Your task to perform on an android device: toggle notifications settings in the gmail app Image 0: 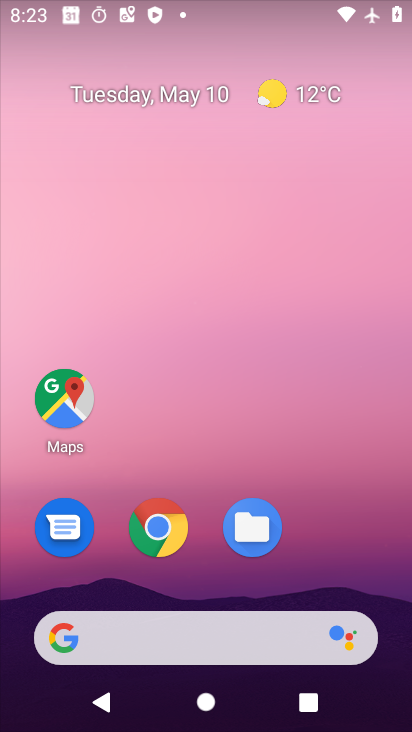
Step 0: drag from (342, 721) to (398, 270)
Your task to perform on an android device: toggle notifications settings in the gmail app Image 1: 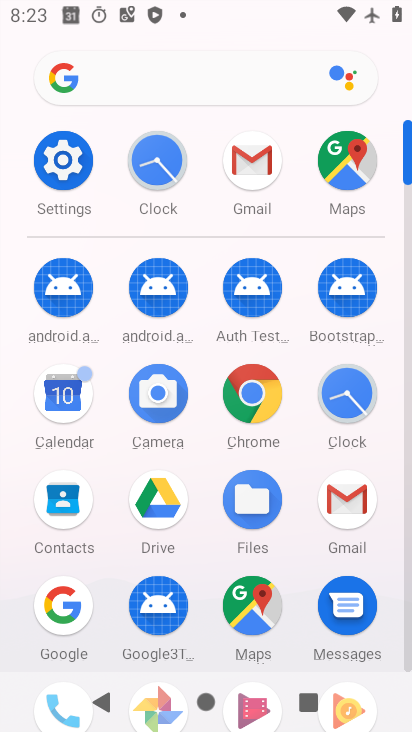
Step 1: click (353, 504)
Your task to perform on an android device: toggle notifications settings in the gmail app Image 2: 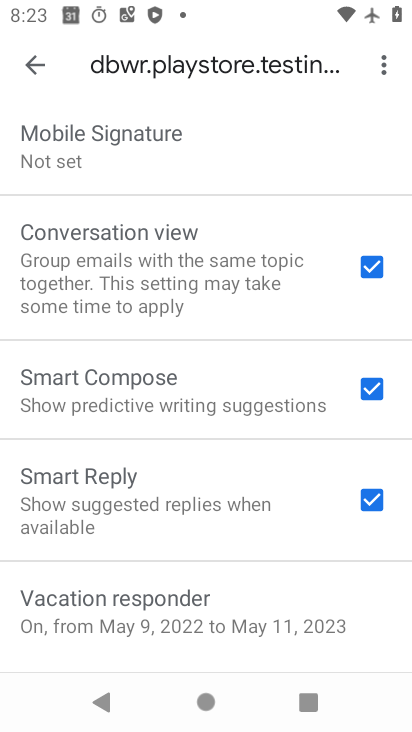
Step 2: drag from (254, 189) to (196, 615)
Your task to perform on an android device: toggle notifications settings in the gmail app Image 3: 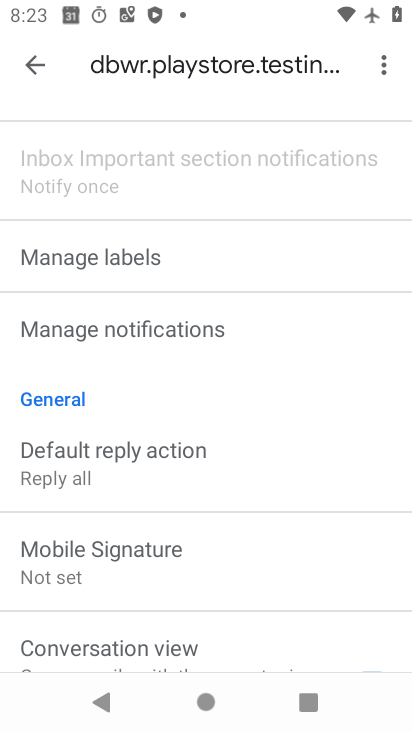
Step 3: drag from (146, 291) to (145, 449)
Your task to perform on an android device: toggle notifications settings in the gmail app Image 4: 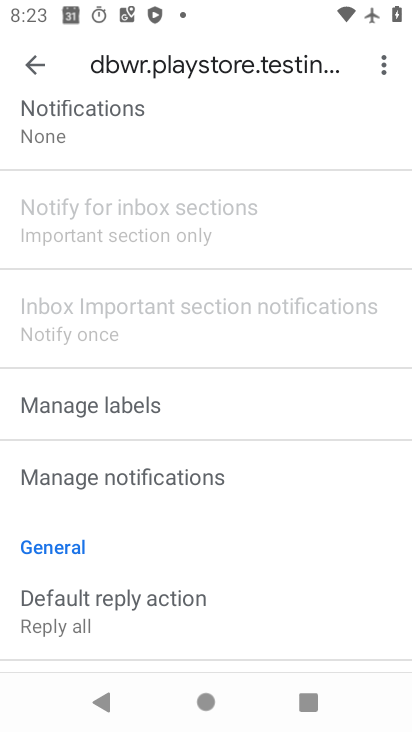
Step 4: drag from (156, 295) to (155, 544)
Your task to perform on an android device: toggle notifications settings in the gmail app Image 5: 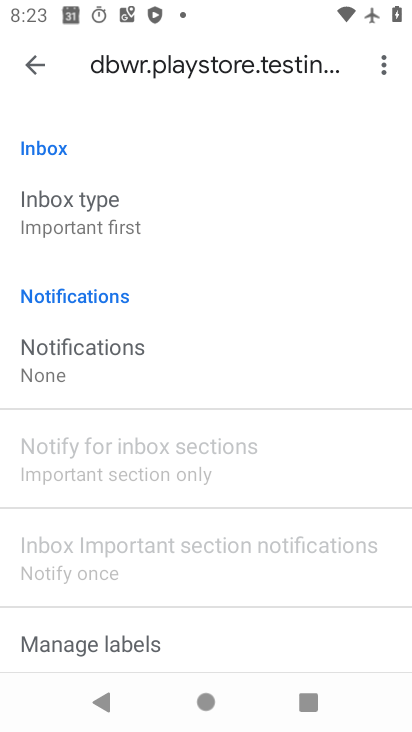
Step 5: click (94, 361)
Your task to perform on an android device: toggle notifications settings in the gmail app Image 6: 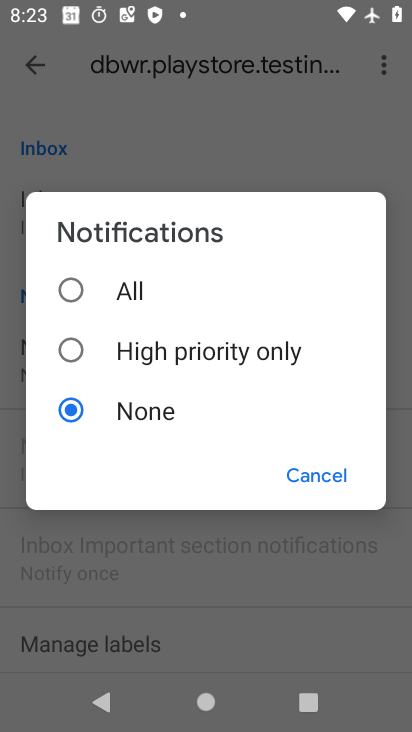
Step 6: click (126, 285)
Your task to perform on an android device: toggle notifications settings in the gmail app Image 7: 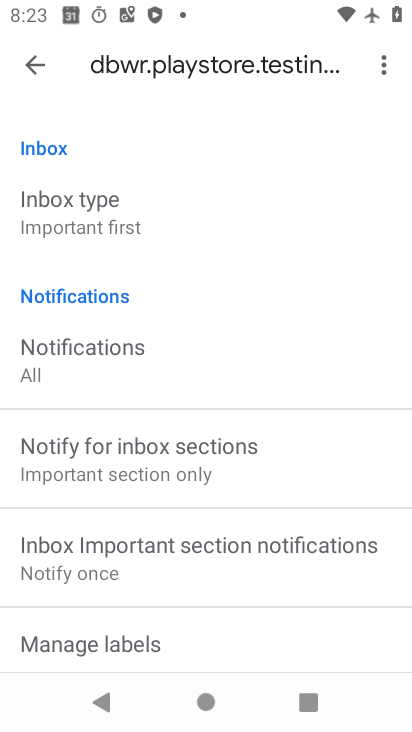
Step 7: task complete